Your task to perform on an android device: find snoozed emails in the gmail app Image 0: 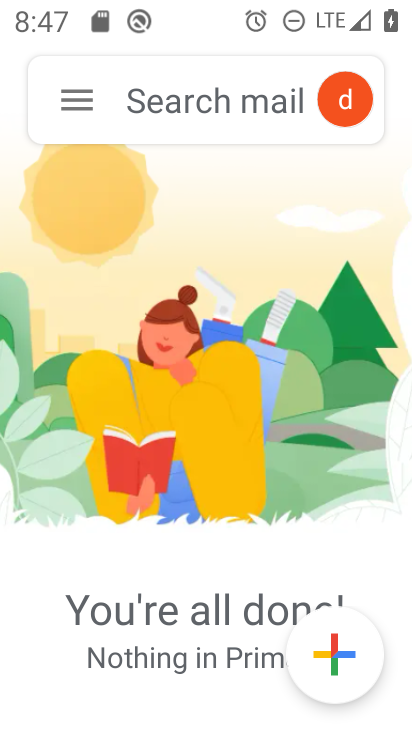
Step 0: click (411, 481)
Your task to perform on an android device: find snoozed emails in the gmail app Image 1: 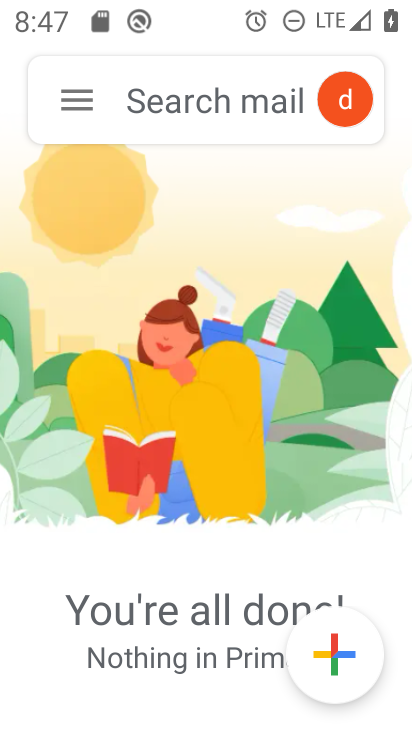
Step 1: click (59, 90)
Your task to perform on an android device: find snoozed emails in the gmail app Image 2: 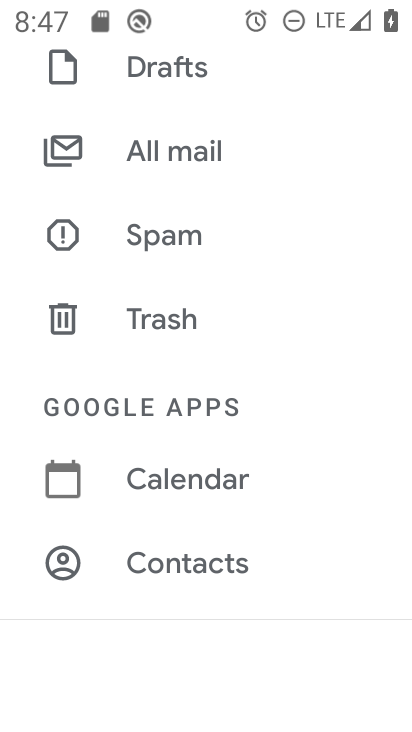
Step 2: drag from (165, 260) to (167, 644)
Your task to perform on an android device: find snoozed emails in the gmail app Image 3: 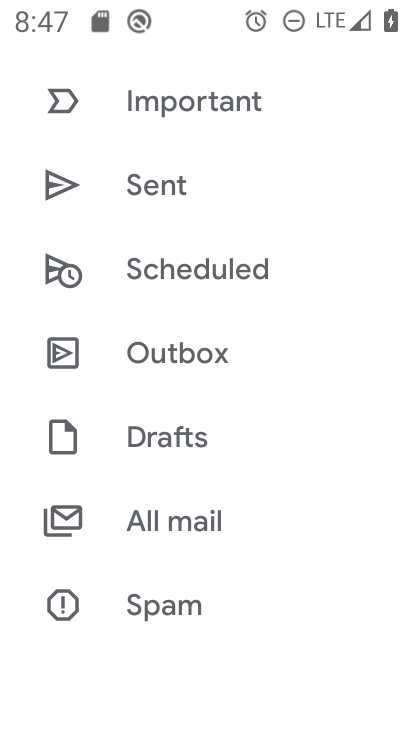
Step 3: drag from (194, 200) to (242, 601)
Your task to perform on an android device: find snoozed emails in the gmail app Image 4: 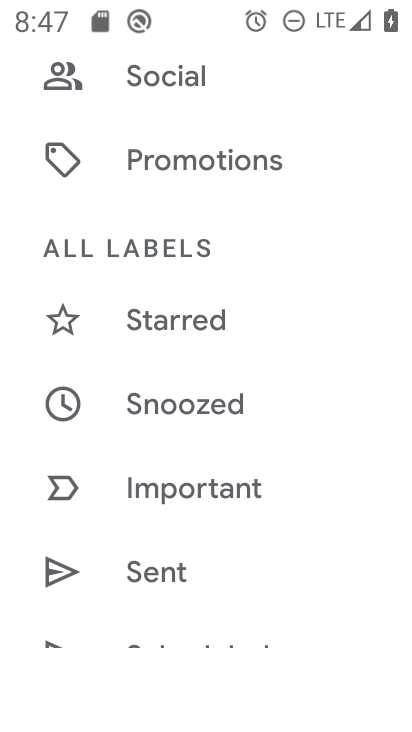
Step 4: click (211, 91)
Your task to perform on an android device: find snoozed emails in the gmail app Image 5: 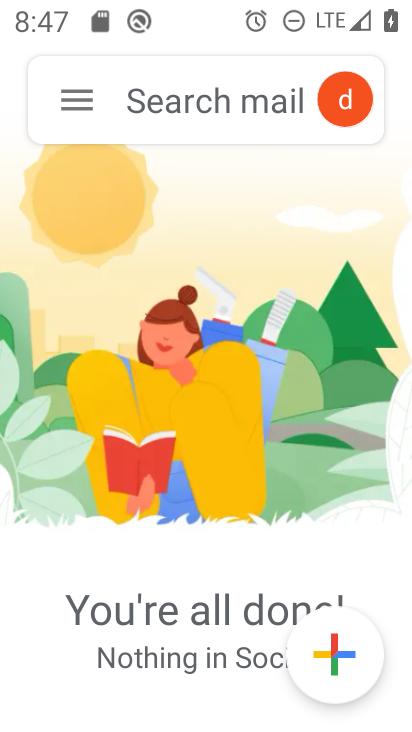
Step 5: task complete